Your task to perform on an android device: Show me recent news Image 0: 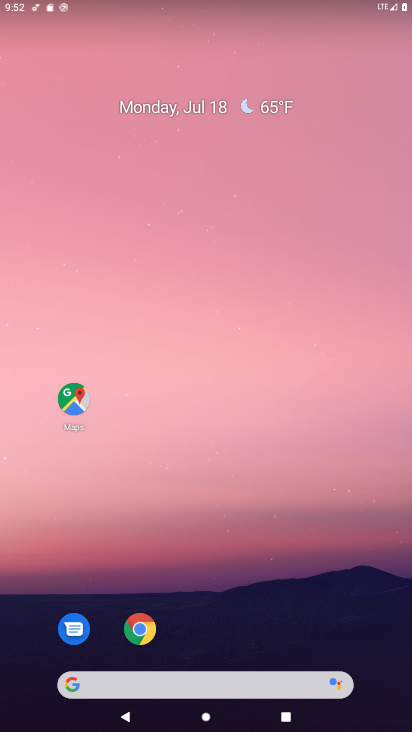
Step 0: drag from (10, 260) to (401, 370)
Your task to perform on an android device: Show me recent news Image 1: 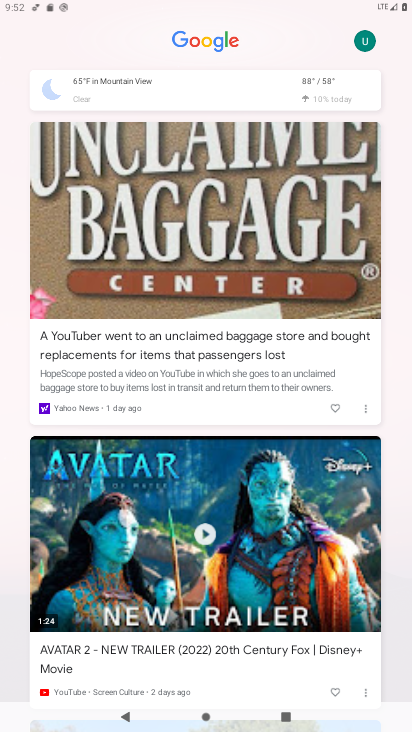
Step 1: task complete